Your task to perform on an android device: Open Google Maps and go to "Timeline" Image 0: 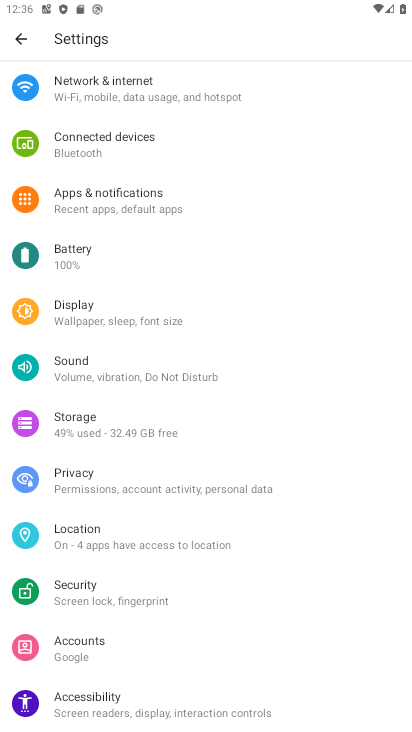
Step 0: press home button
Your task to perform on an android device: Open Google Maps and go to "Timeline" Image 1: 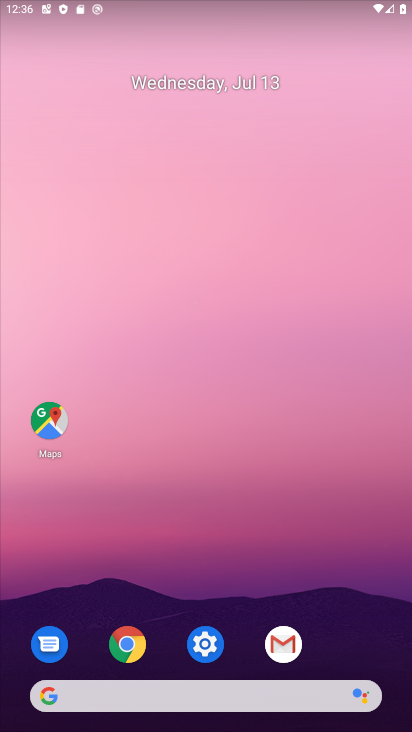
Step 1: click (58, 426)
Your task to perform on an android device: Open Google Maps and go to "Timeline" Image 2: 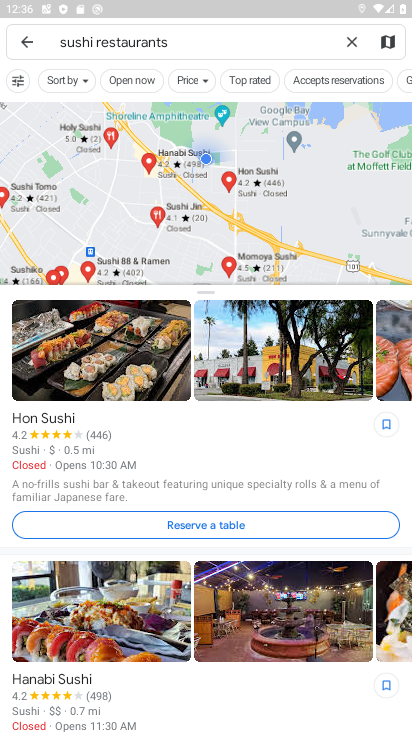
Step 2: click (26, 44)
Your task to perform on an android device: Open Google Maps and go to "Timeline" Image 3: 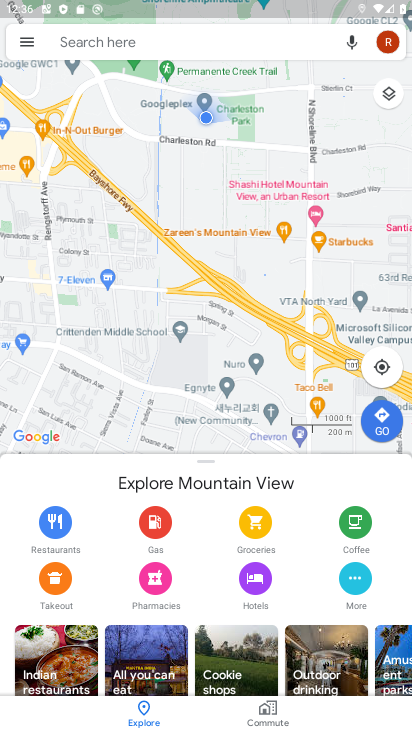
Step 3: click (26, 44)
Your task to perform on an android device: Open Google Maps and go to "Timeline" Image 4: 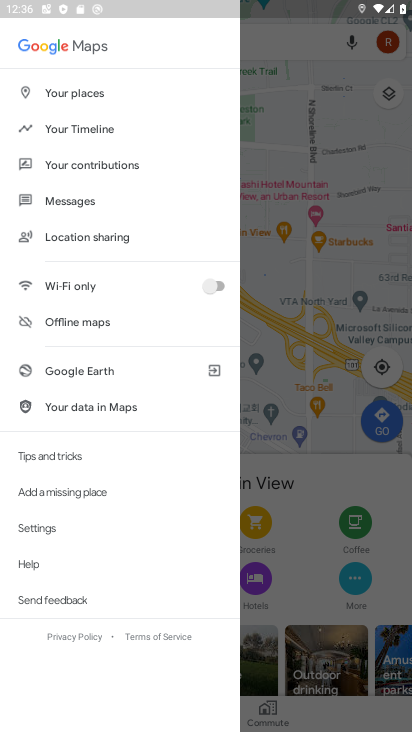
Step 4: click (78, 123)
Your task to perform on an android device: Open Google Maps and go to "Timeline" Image 5: 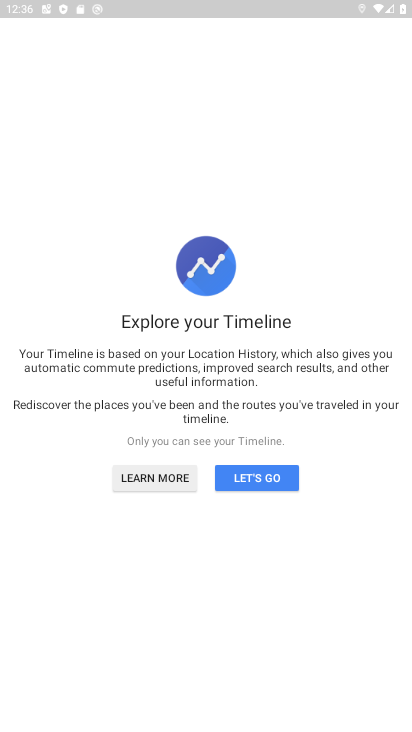
Step 5: click (257, 474)
Your task to perform on an android device: Open Google Maps and go to "Timeline" Image 6: 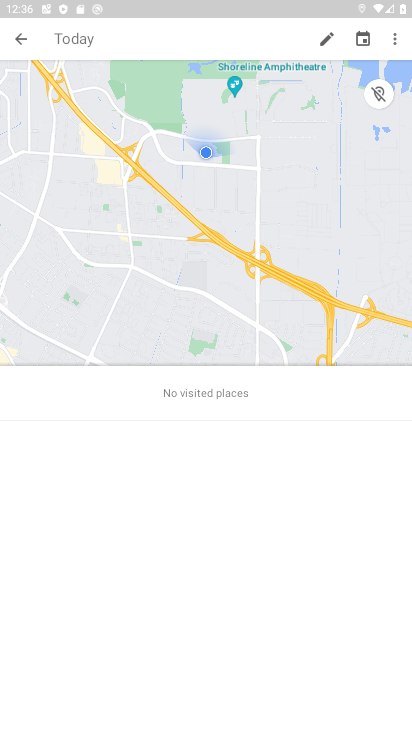
Step 6: task complete